Your task to perform on an android device: set the timer Image 0: 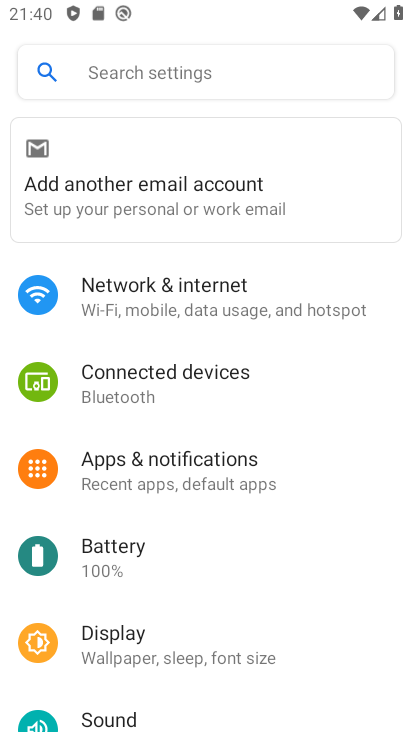
Step 0: press home button
Your task to perform on an android device: set the timer Image 1: 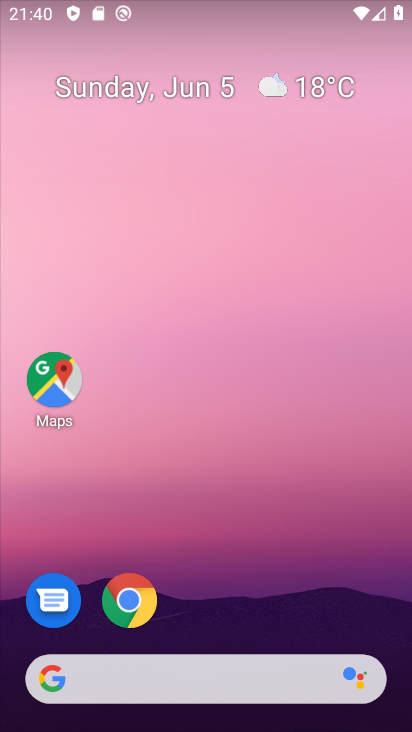
Step 1: drag from (268, 541) to (261, 185)
Your task to perform on an android device: set the timer Image 2: 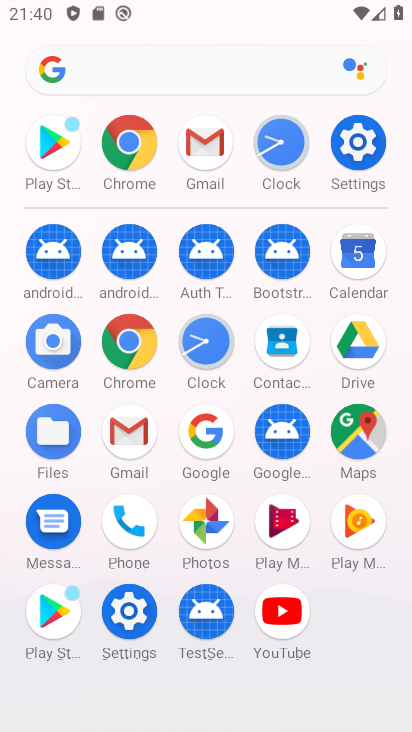
Step 2: click (215, 347)
Your task to perform on an android device: set the timer Image 3: 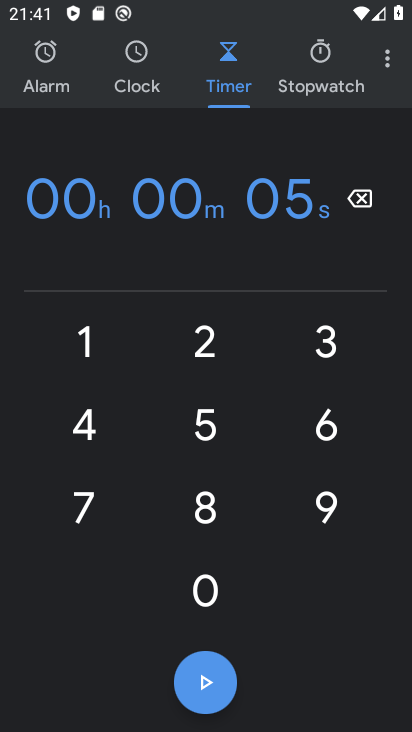
Step 3: task complete